Your task to perform on an android device: toggle wifi Image 0: 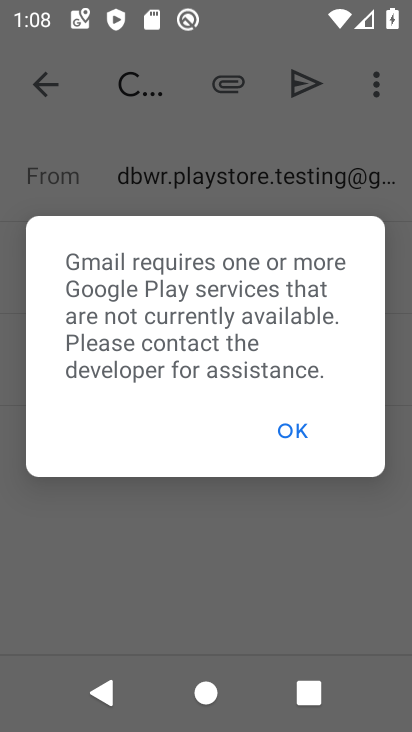
Step 0: press home button
Your task to perform on an android device: toggle wifi Image 1: 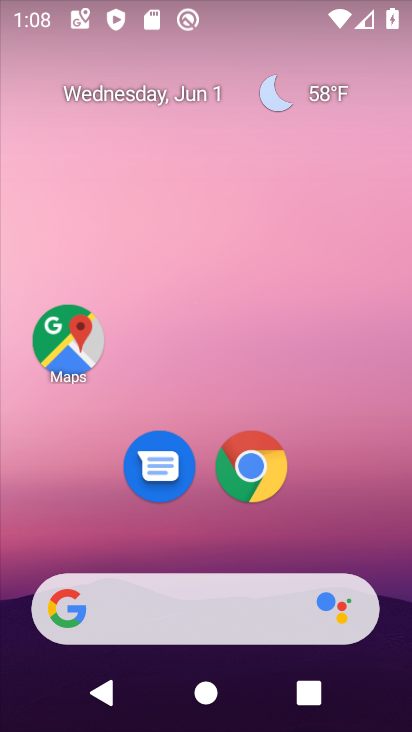
Step 1: drag from (396, 542) to (245, 168)
Your task to perform on an android device: toggle wifi Image 2: 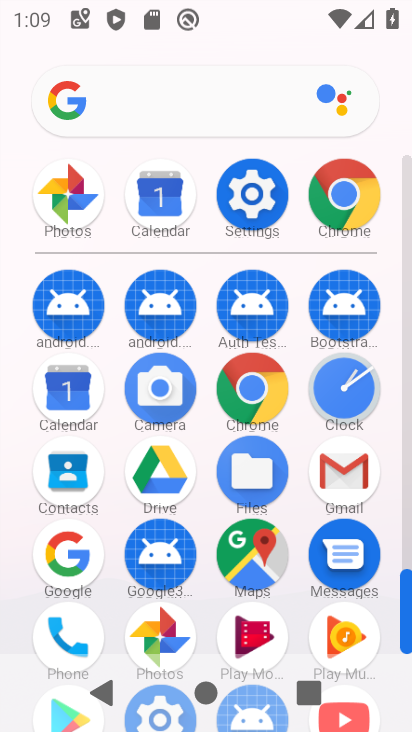
Step 2: click (259, 212)
Your task to perform on an android device: toggle wifi Image 3: 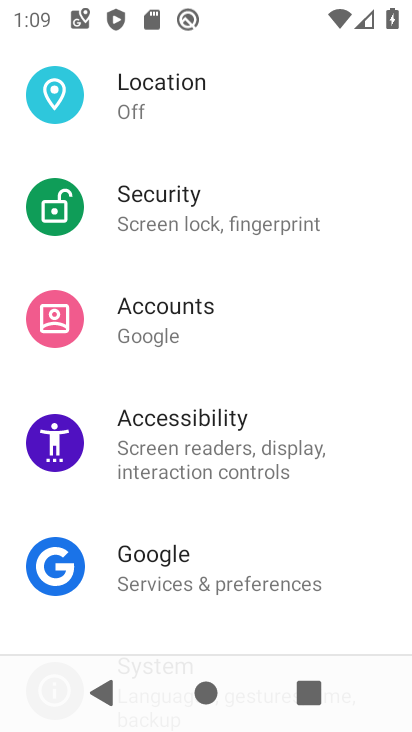
Step 3: drag from (223, 148) to (236, 436)
Your task to perform on an android device: toggle wifi Image 4: 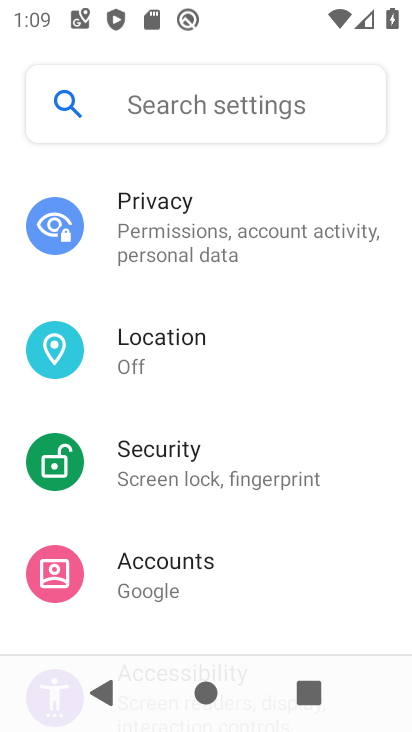
Step 4: drag from (198, 174) to (240, 452)
Your task to perform on an android device: toggle wifi Image 5: 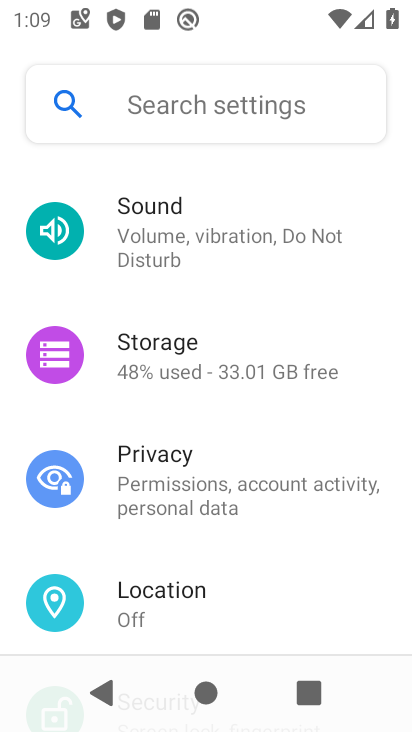
Step 5: drag from (210, 267) to (220, 644)
Your task to perform on an android device: toggle wifi Image 6: 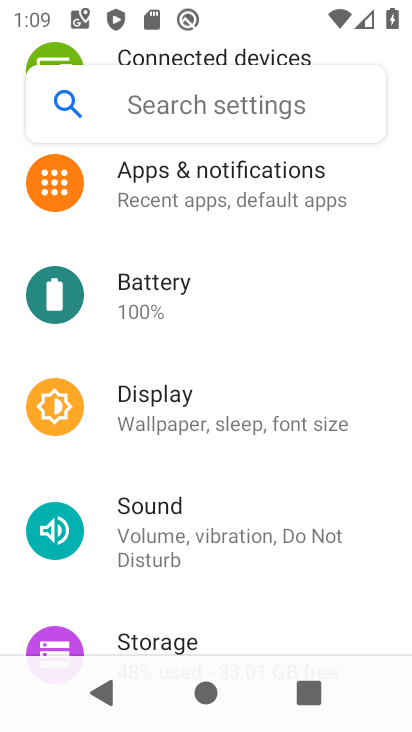
Step 6: drag from (197, 222) to (204, 501)
Your task to perform on an android device: toggle wifi Image 7: 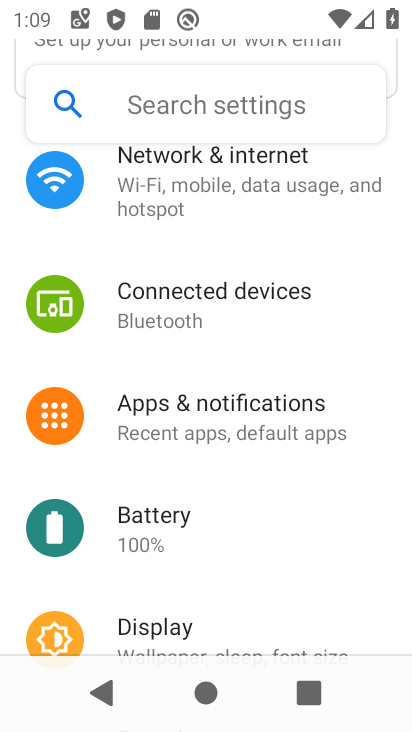
Step 7: click (167, 207)
Your task to perform on an android device: toggle wifi Image 8: 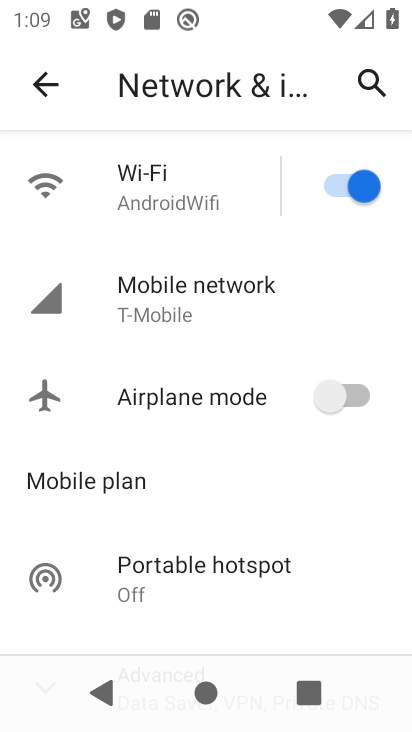
Step 8: click (341, 194)
Your task to perform on an android device: toggle wifi Image 9: 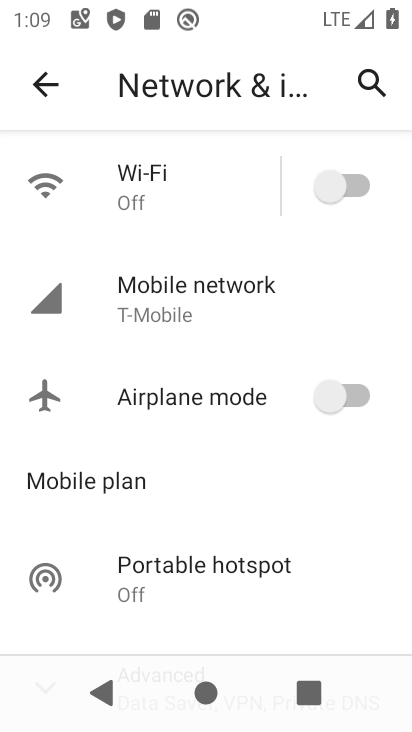
Step 9: task complete